Your task to perform on an android device: open device folders in google photos Image 0: 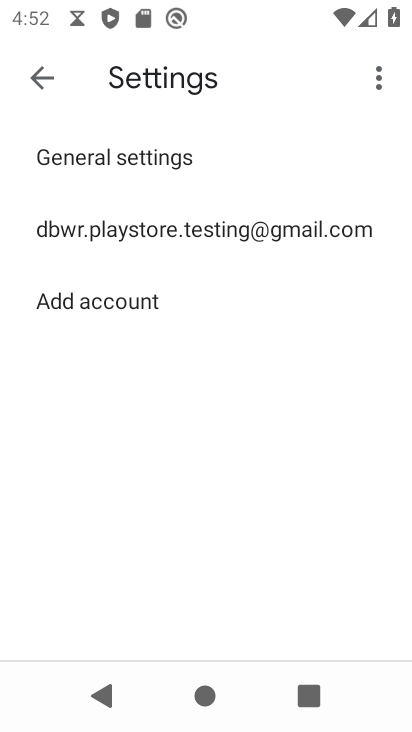
Step 0: press back button
Your task to perform on an android device: open device folders in google photos Image 1: 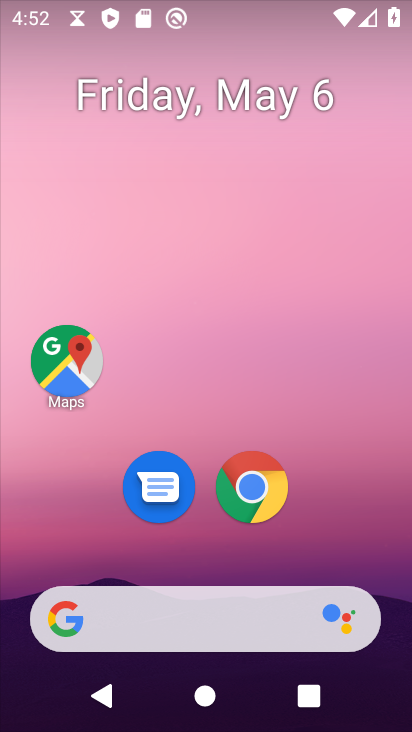
Step 1: drag from (205, 427) to (260, 1)
Your task to perform on an android device: open device folders in google photos Image 2: 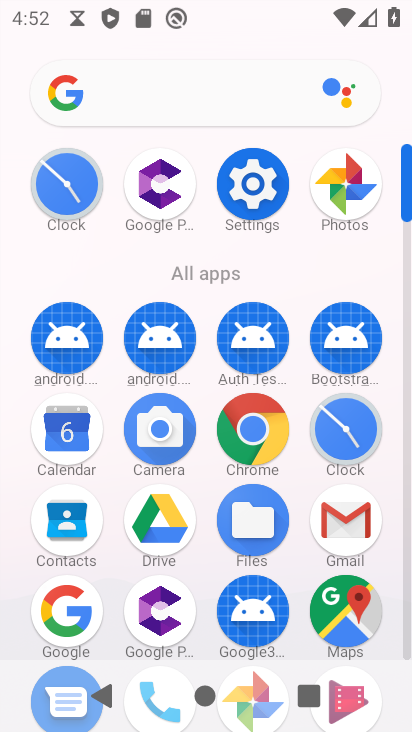
Step 2: click (347, 182)
Your task to perform on an android device: open device folders in google photos Image 3: 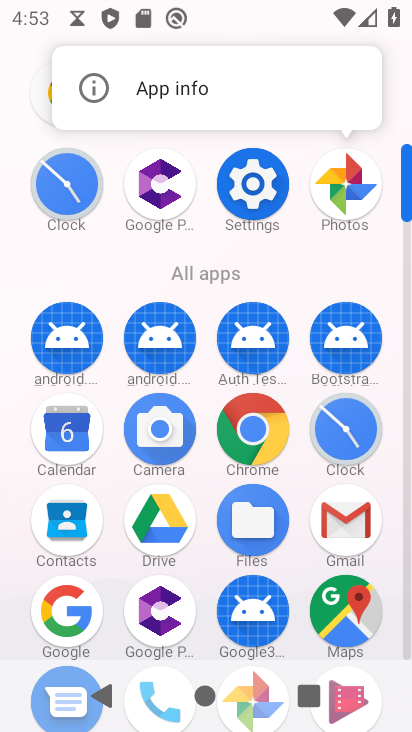
Step 3: click (347, 184)
Your task to perform on an android device: open device folders in google photos Image 4: 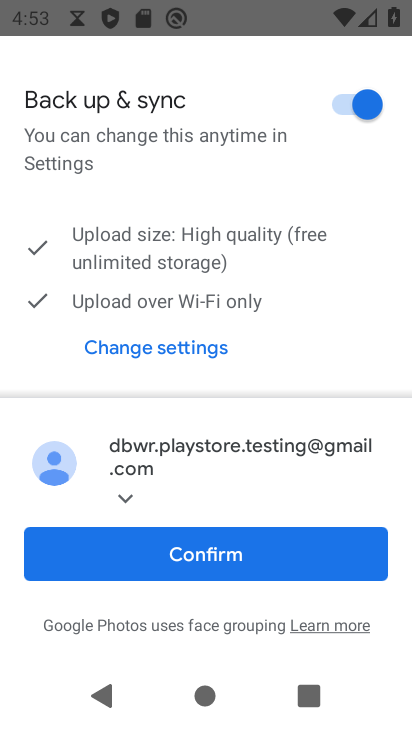
Step 4: click (209, 546)
Your task to perform on an android device: open device folders in google photos Image 5: 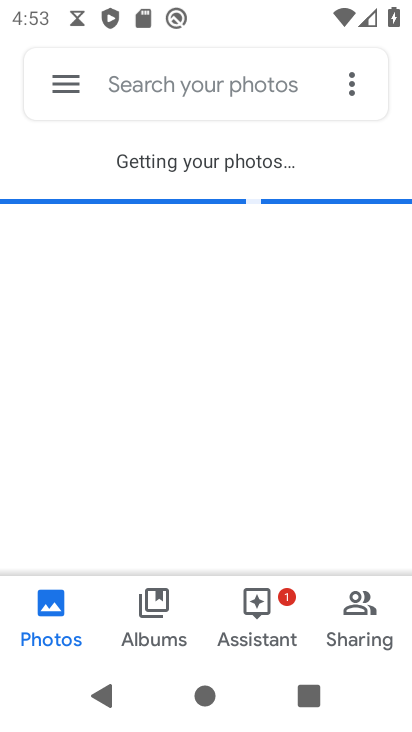
Step 5: click (60, 83)
Your task to perform on an android device: open device folders in google photos Image 6: 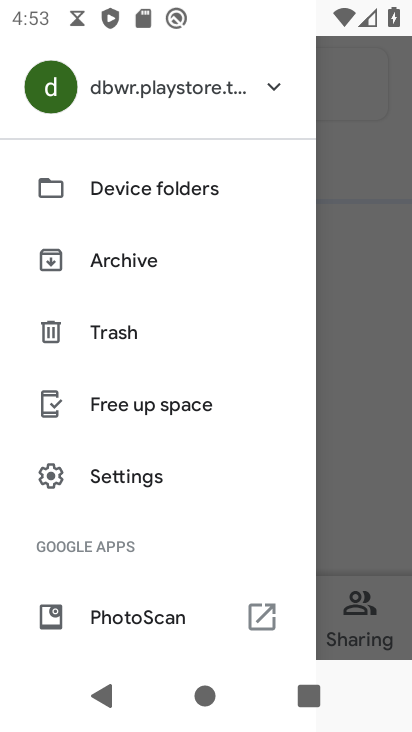
Step 6: click (142, 188)
Your task to perform on an android device: open device folders in google photos Image 7: 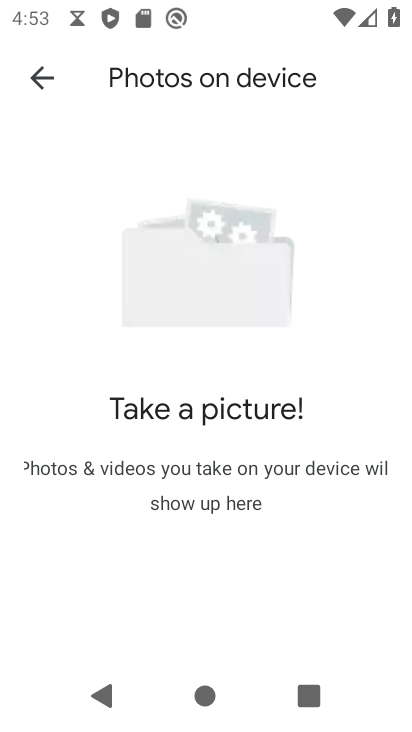
Step 7: task complete